Your task to perform on an android device: Go to notification settings Image 0: 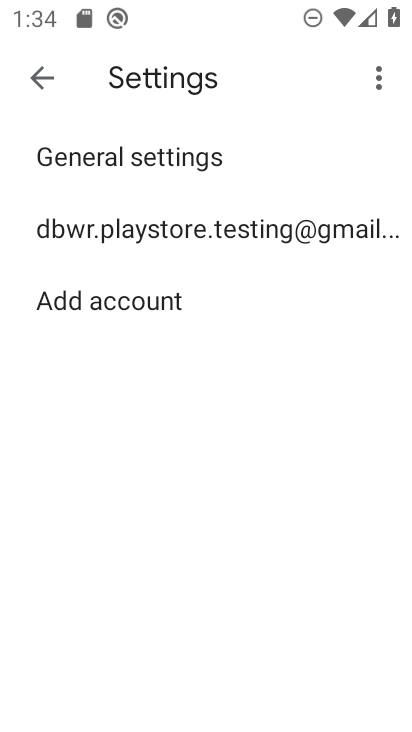
Step 0: press home button
Your task to perform on an android device: Go to notification settings Image 1: 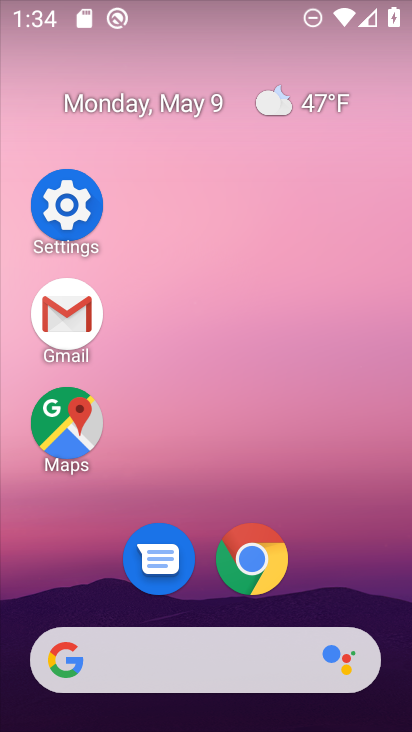
Step 1: click (86, 206)
Your task to perform on an android device: Go to notification settings Image 2: 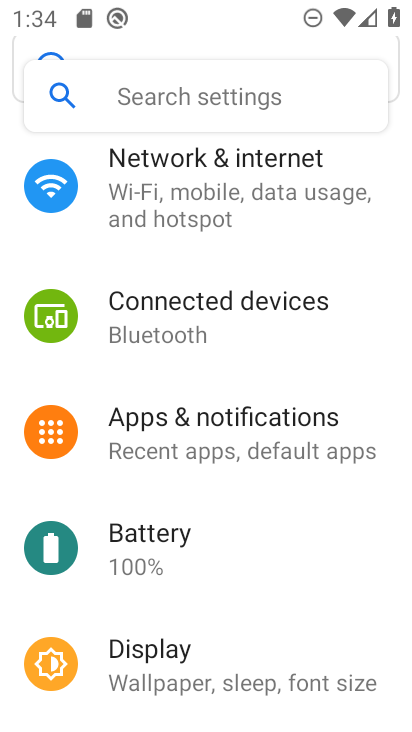
Step 2: click (228, 421)
Your task to perform on an android device: Go to notification settings Image 3: 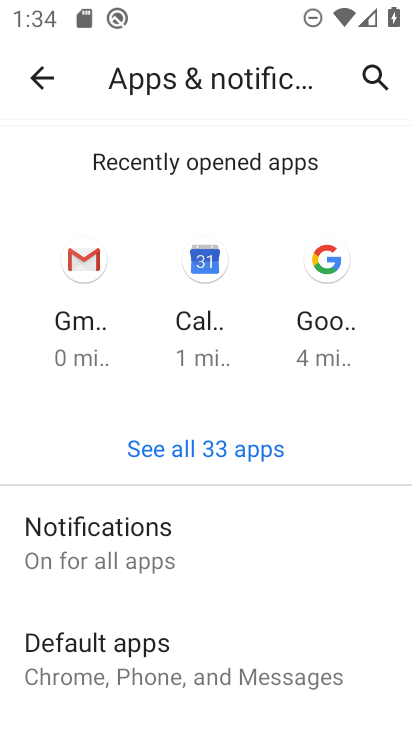
Step 3: task complete